Your task to perform on an android device: Open settings on Google Maps Image 0: 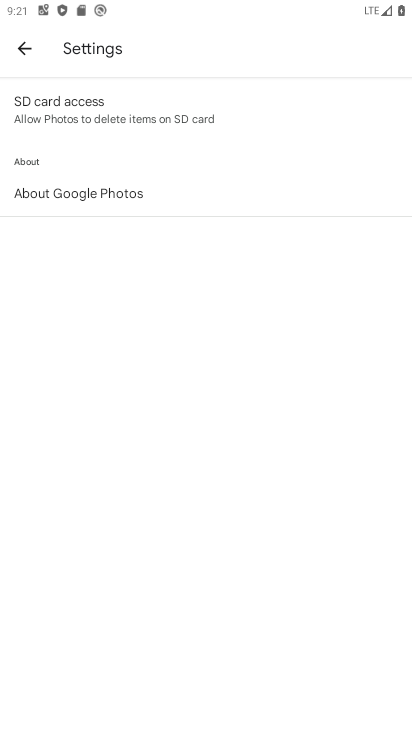
Step 0: press back button
Your task to perform on an android device: Open settings on Google Maps Image 1: 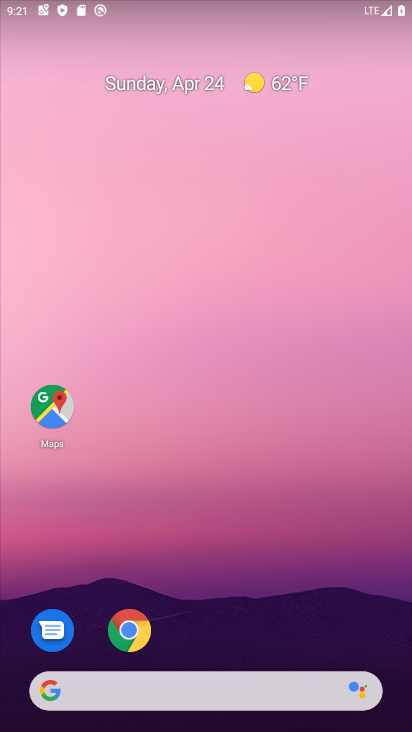
Step 1: drag from (286, 554) to (83, 3)
Your task to perform on an android device: Open settings on Google Maps Image 2: 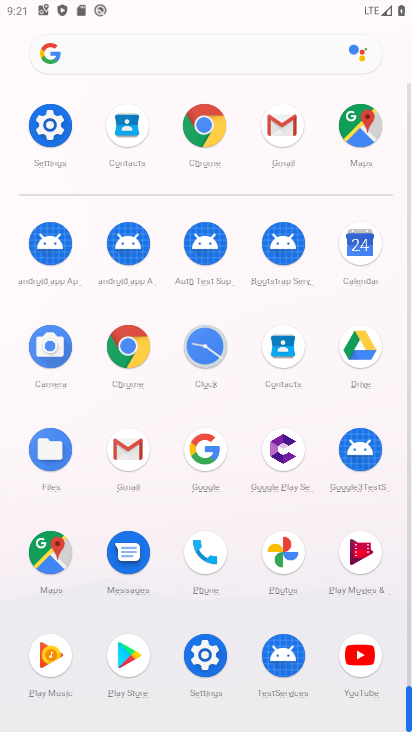
Step 2: click (362, 122)
Your task to perform on an android device: Open settings on Google Maps Image 3: 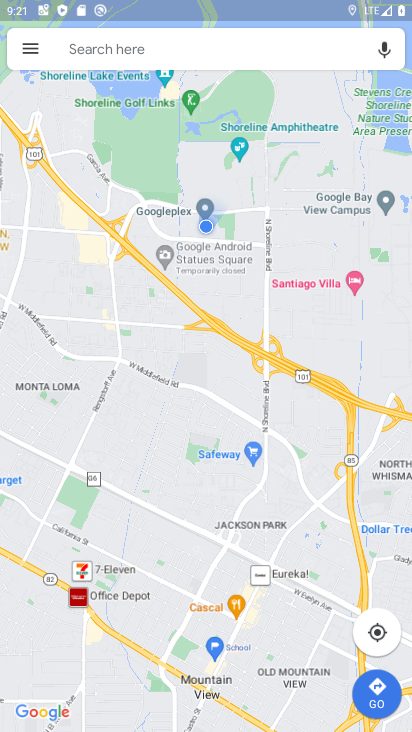
Step 3: click (37, 44)
Your task to perform on an android device: Open settings on Google Maps Image 4: 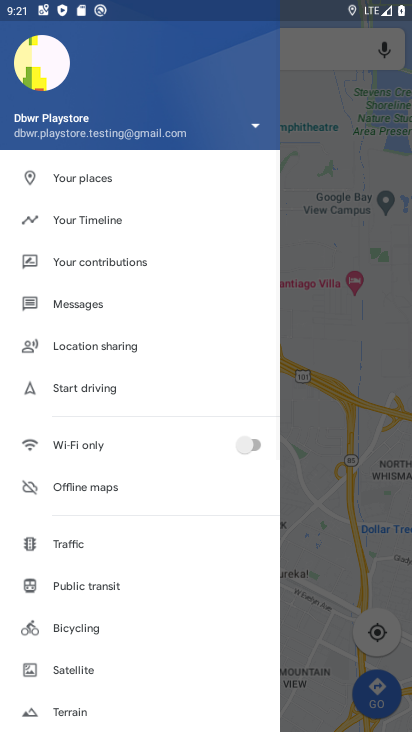
Step 4: drag from (90, 668) to (181, 221)
Your task to perform on an android device: Open settings on Google Maps Image 5: 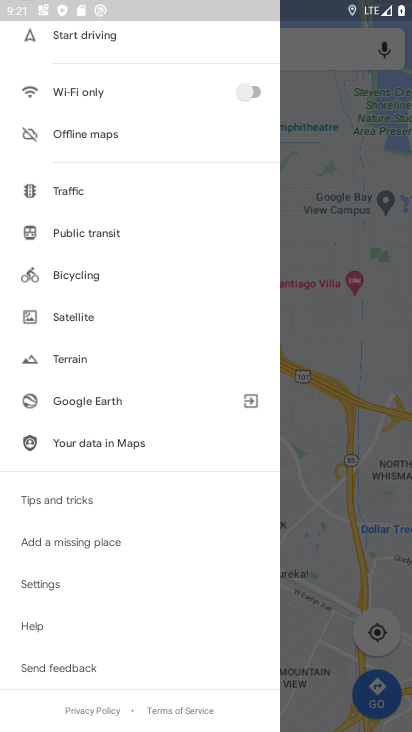
Step 5: click (45, 575)
Your task to perform on an android device: Open settings on Google Maps Image 6: 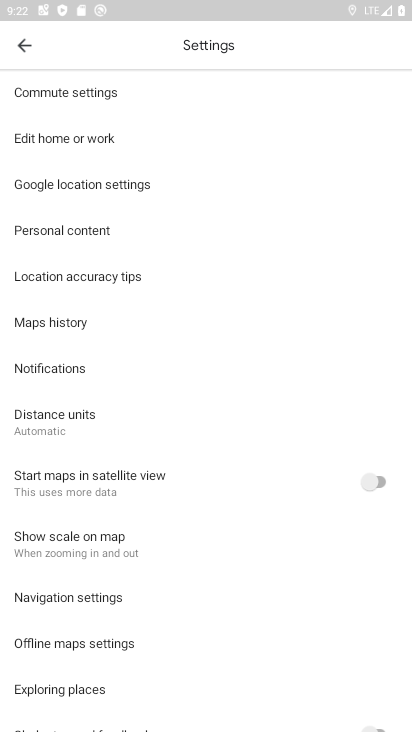
Step 6: task complete